Your task to perform on an android device: turn off location Image 0: 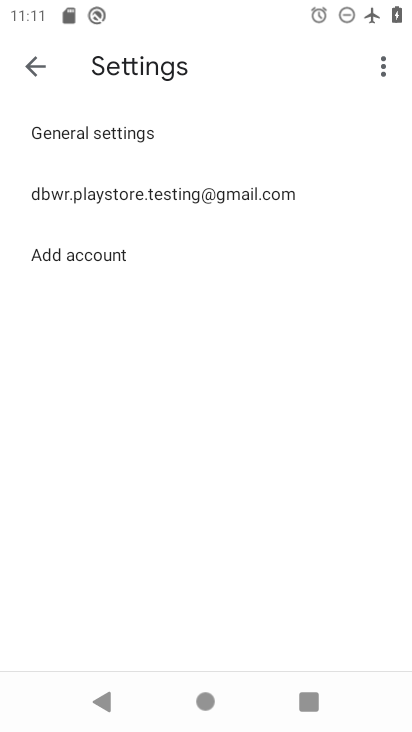
Step 0: press home button
Your task to perform on an android device: turn off location Image 1: 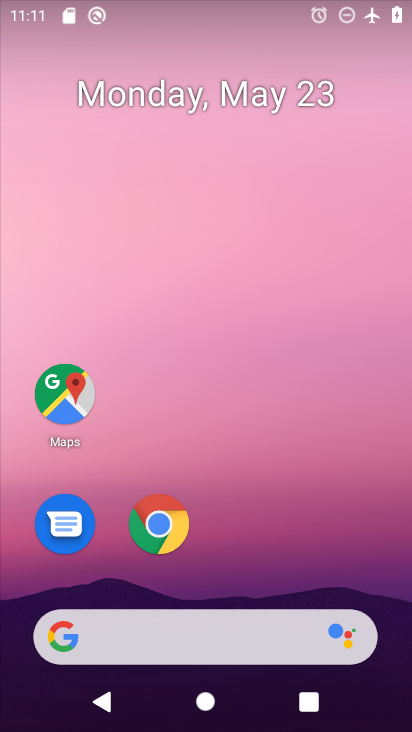
Step 1: drag from (224, 567) to (187, 154)
Your task to perform on an android device: turn off location Image 2: 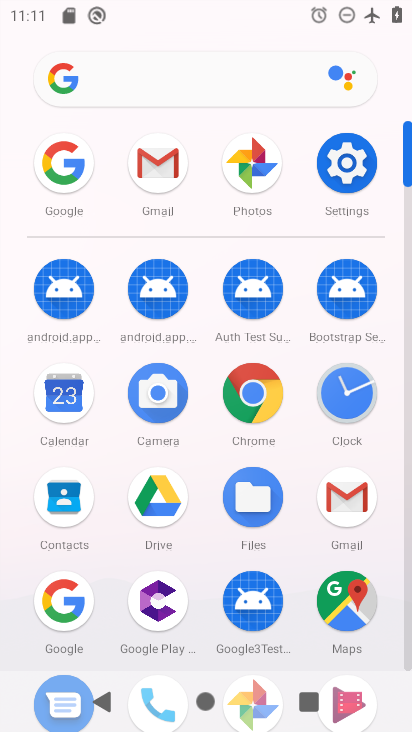
Step 2: click (316, 168)
Your task to perform on an android device: turn off location Image 3: 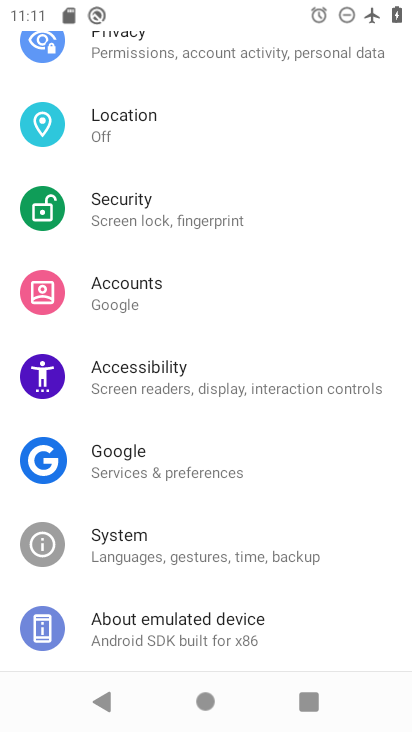
Step 3: click (148, 145)
Your task to perform on an android device: turn off location Image 4: 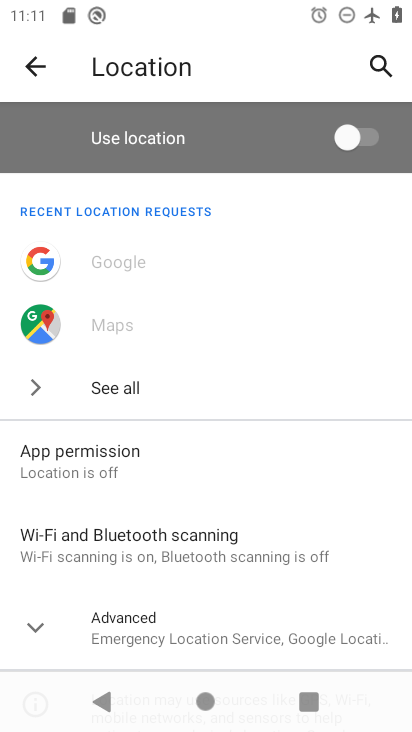
Step 4: task complete